Your task to perform on an android device: uninstall "Yahoo Mail" Image 0: 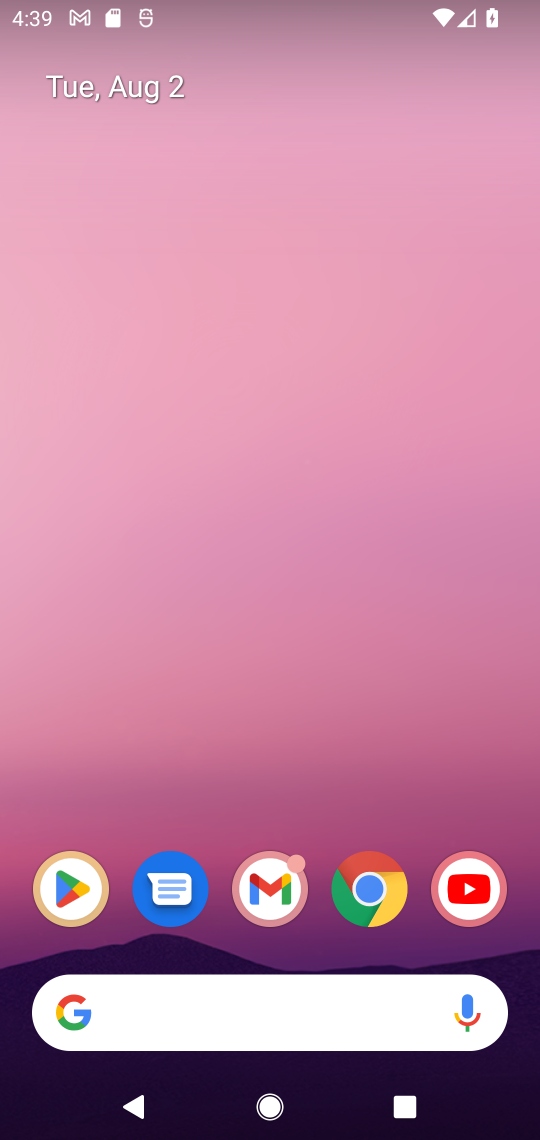
Step 0: press home button
Your task to perform on an android device: uninstall "Yahoo Mail" Image 1: 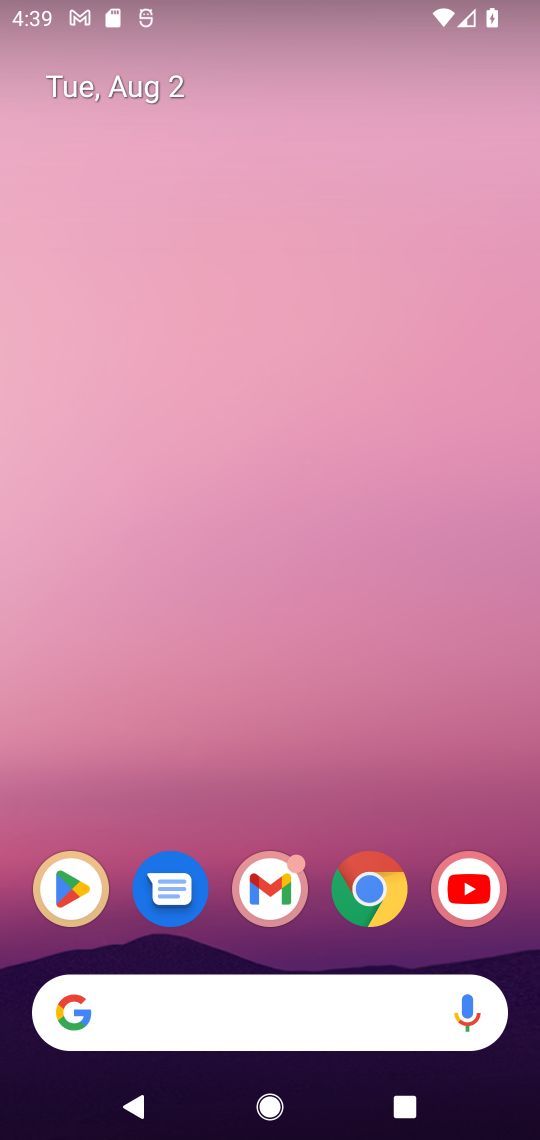
Step 1: drag from (401, 735) to (364, 71)
Your task to perform on an android device: uninstall "Yahoo Mail" Image 2: 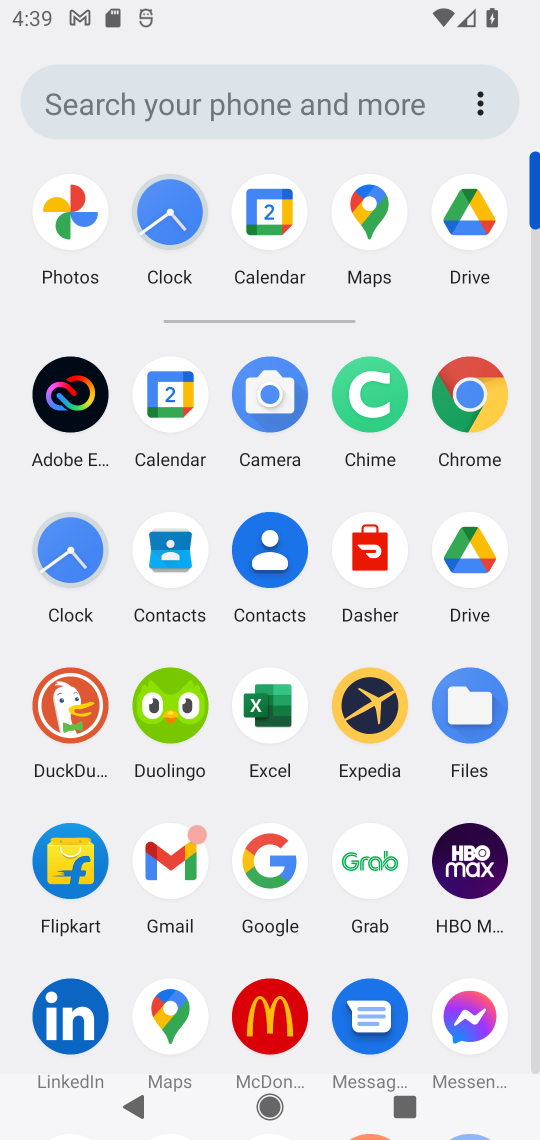
Step 2: drag from (414, 947) to (413, 320)
Your task to perform on an android device: uninstall "Yahoo Mail" Image 3: 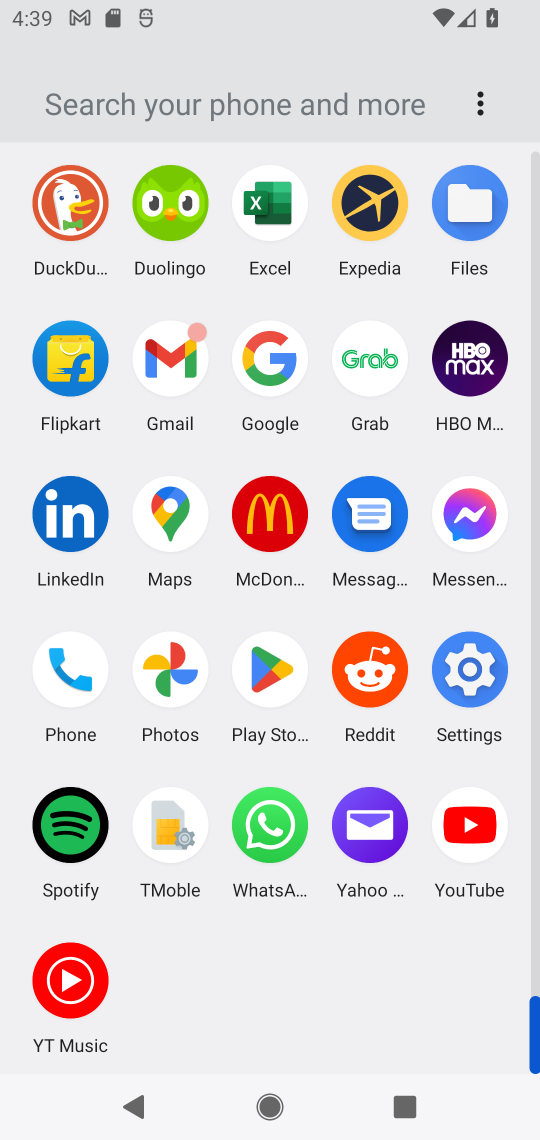
Step 3: click (271, 678)
Your task to perform on an android device: uninstall "Yahoo Mail" Image 4: 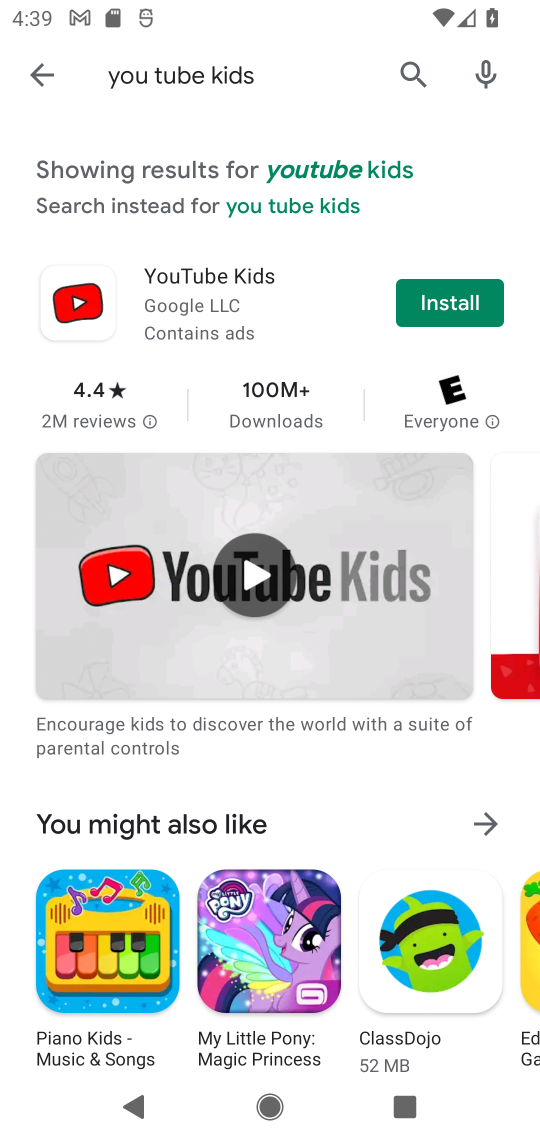
Step 4: click (413, 81)
Your task to perform on an android device: uninstall "Yahoo Mail" Image 5: 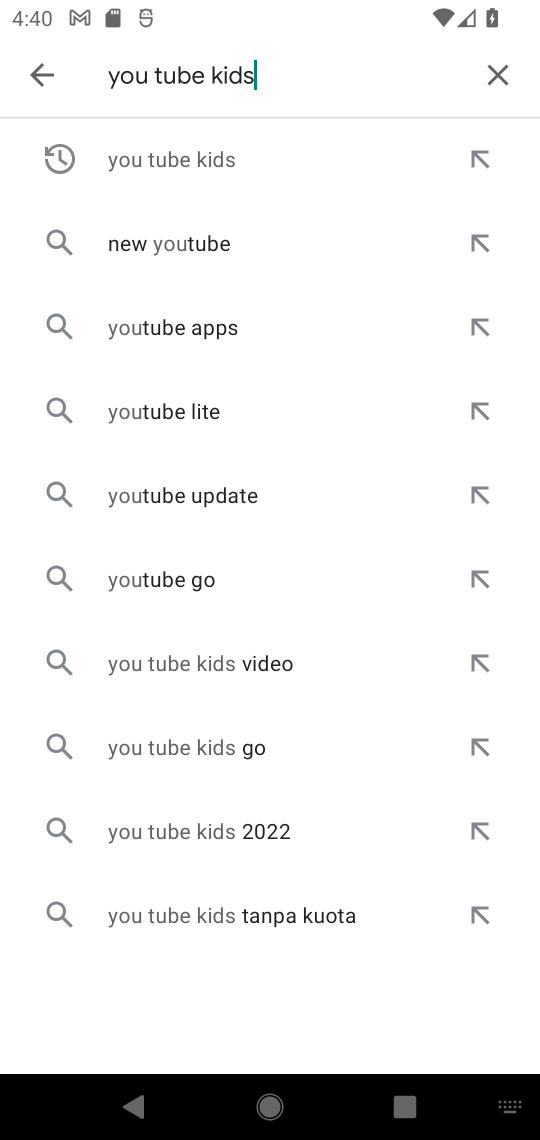
Step 5: click (485, 73)
Your task to perform on an android device: uninstall "Yahoo Mail" Image 6: 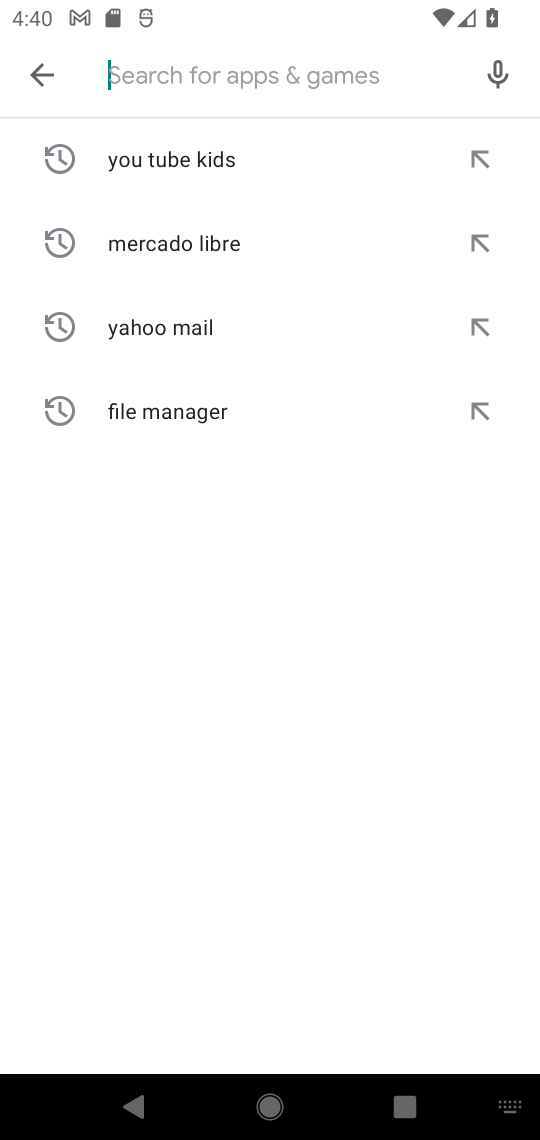
Step 6: type "yahoo mail"
Your task to perform on an android device: uninstall "Yahoo Mail" Image 7: 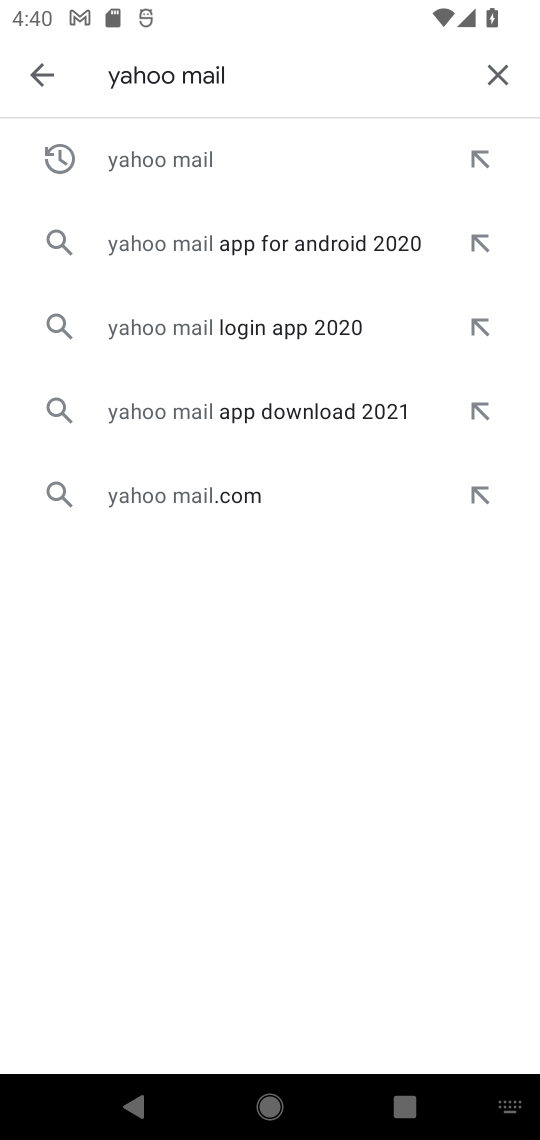
Step 7: click (294, 168)
Your task to perform on an android device: uninstall "Yahoo Mail" Image 8: 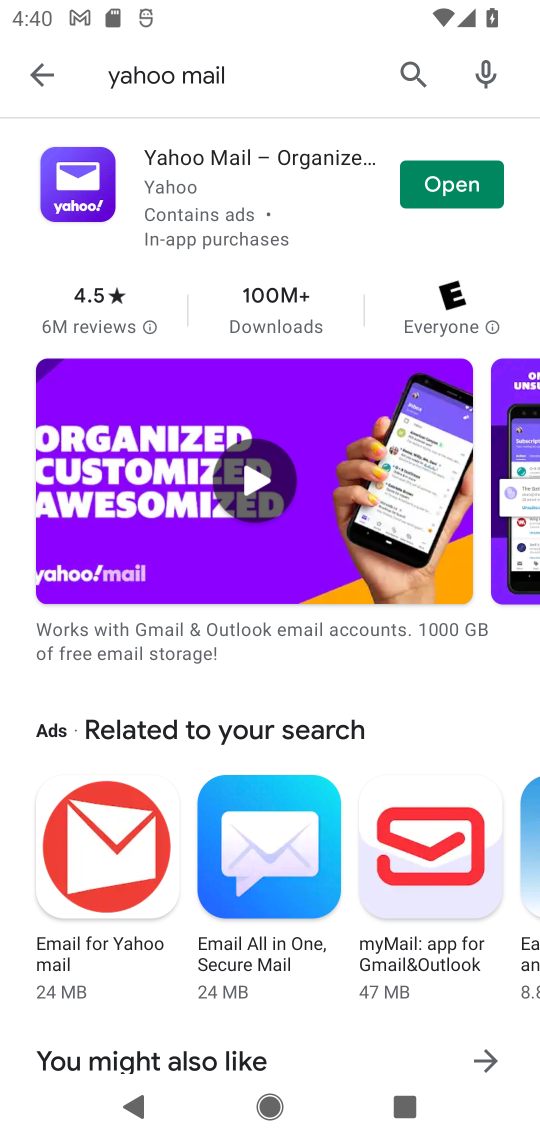
Step 8: task complete